Your task to perform on an android device: install app "Google Home" Image 0: 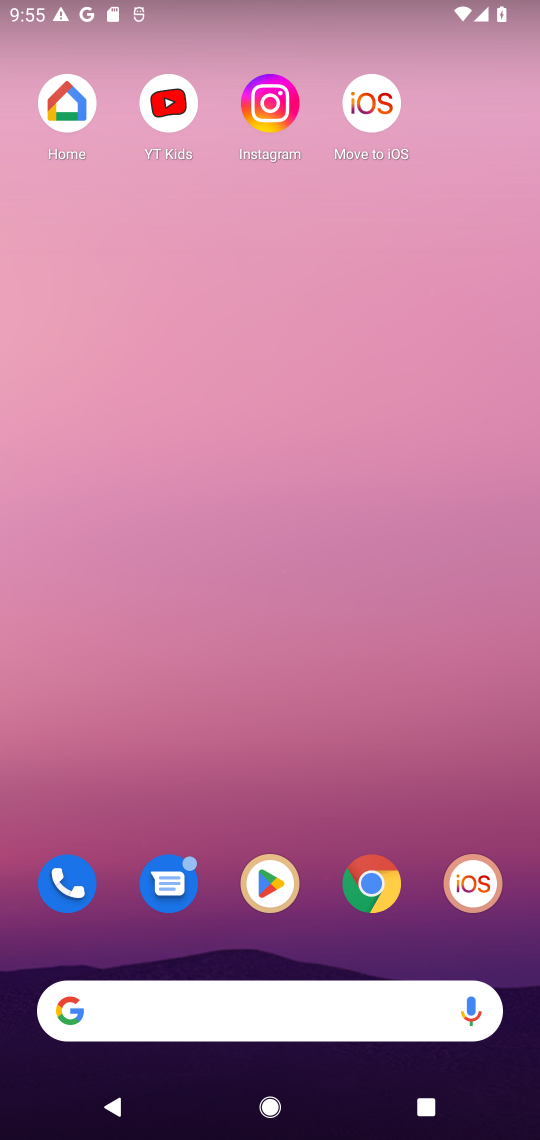
Step 0: press home button
Your task to perform on an android device: install app "Google Home" Image 1: 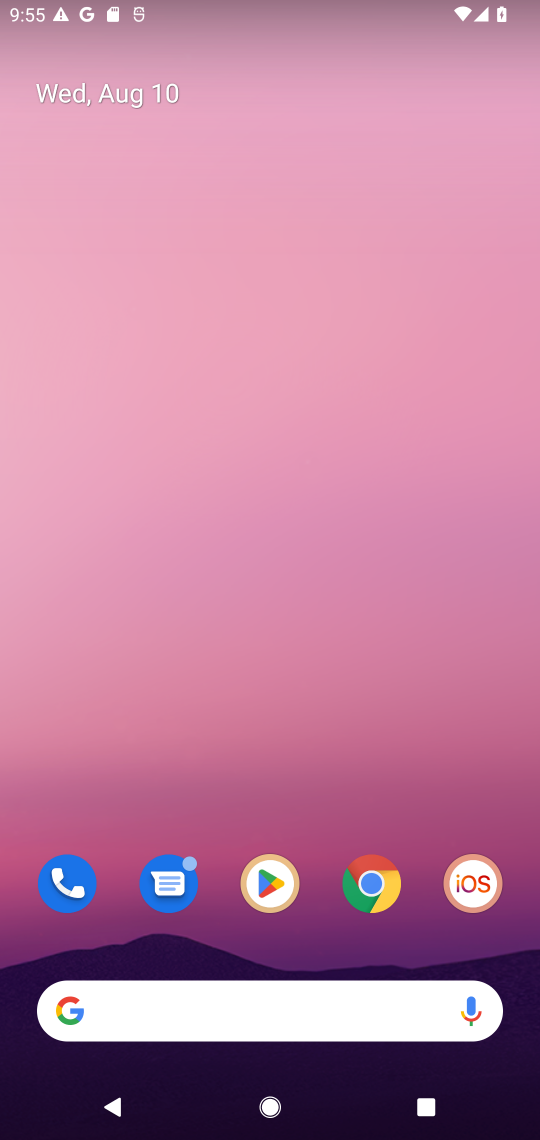
Step 1: drag from (421, 821) to (428, 82)
Your task to perform on an android device: install app "Google Home" Image 2: 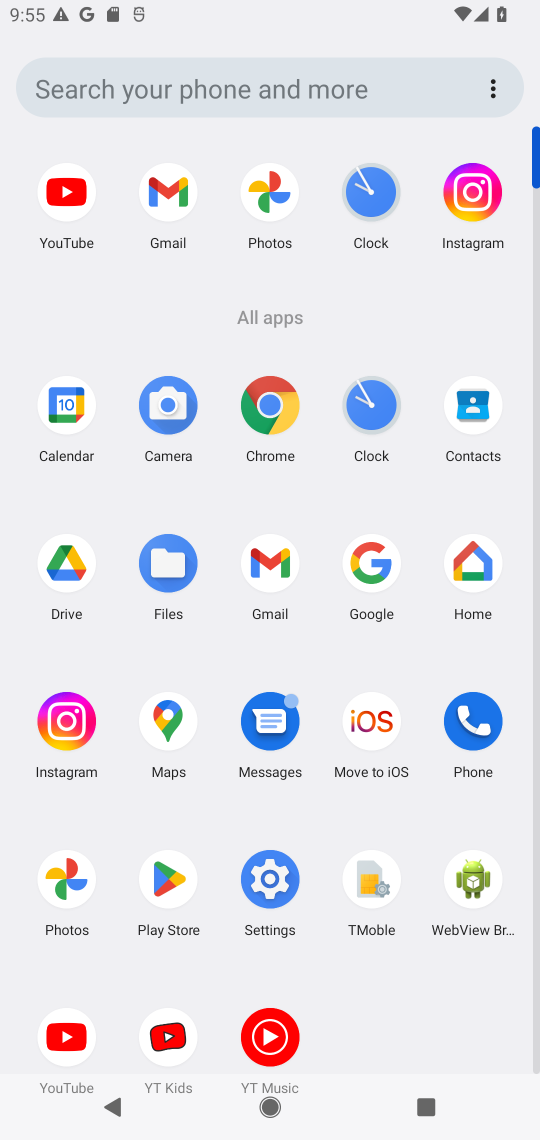
Step 2: click (161, 873)
Your task to perform on an android device: install app "Google Home" Image 3: 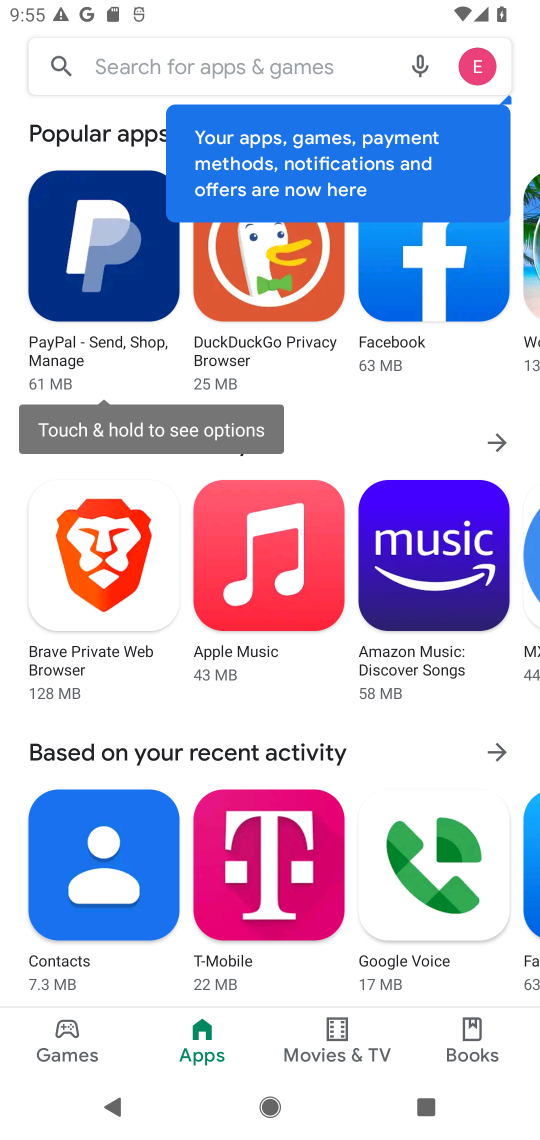
Step 3: click (313, 65)
Your task to perform on an android device: install app "Google Home" Image 4: 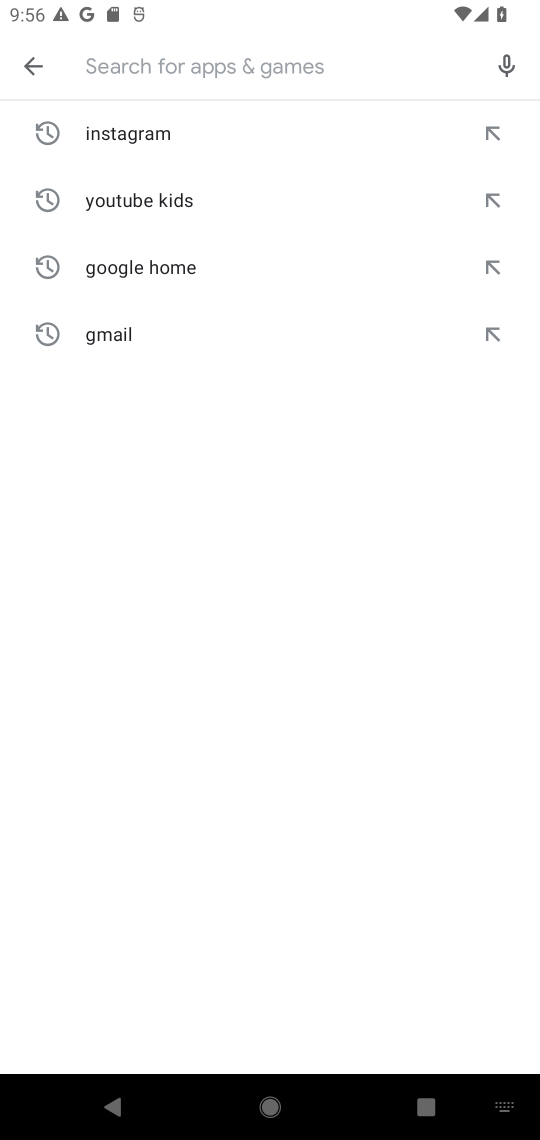
Step 4: press enter
Your task to perform on an android device: install app "Google Home" Image 5: 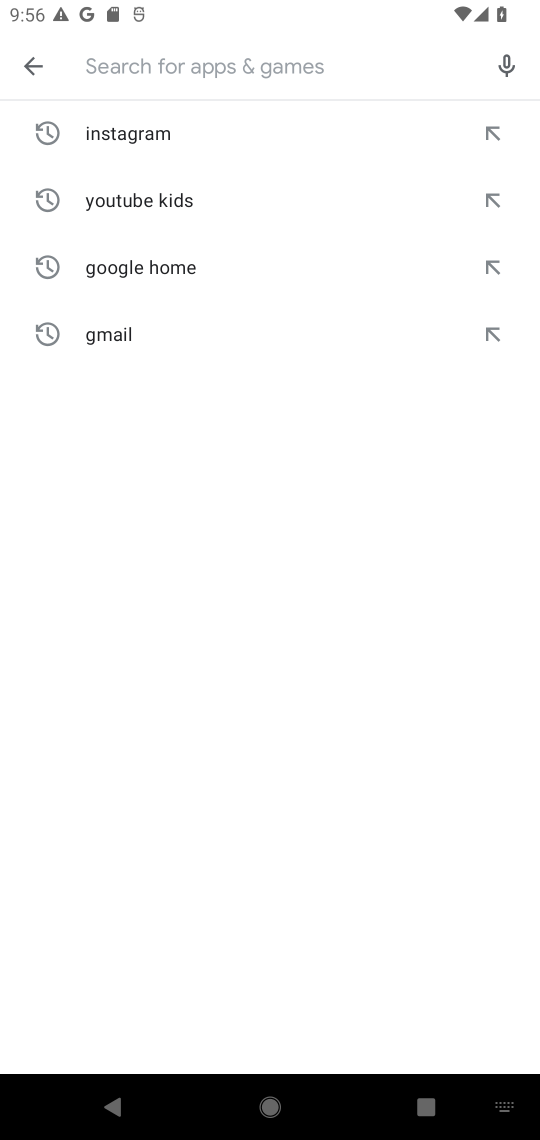
Step 5: type "google home"
Your task to perform on an android device: install app "Google Home" Image 6: 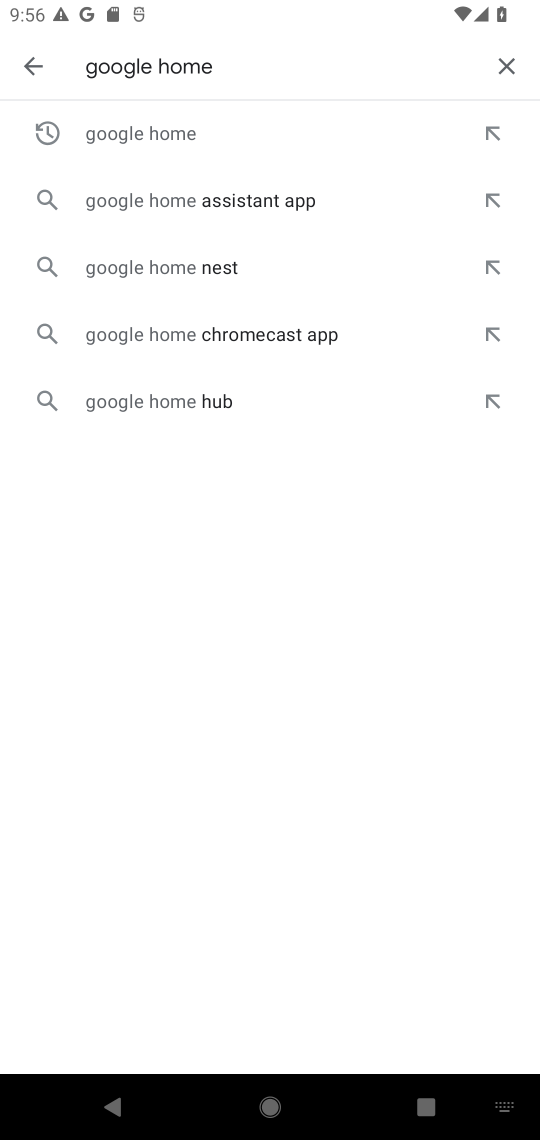
Step 6: click (162, 130)
Your task to perform on an android device: install app "Google Home" Image 7: 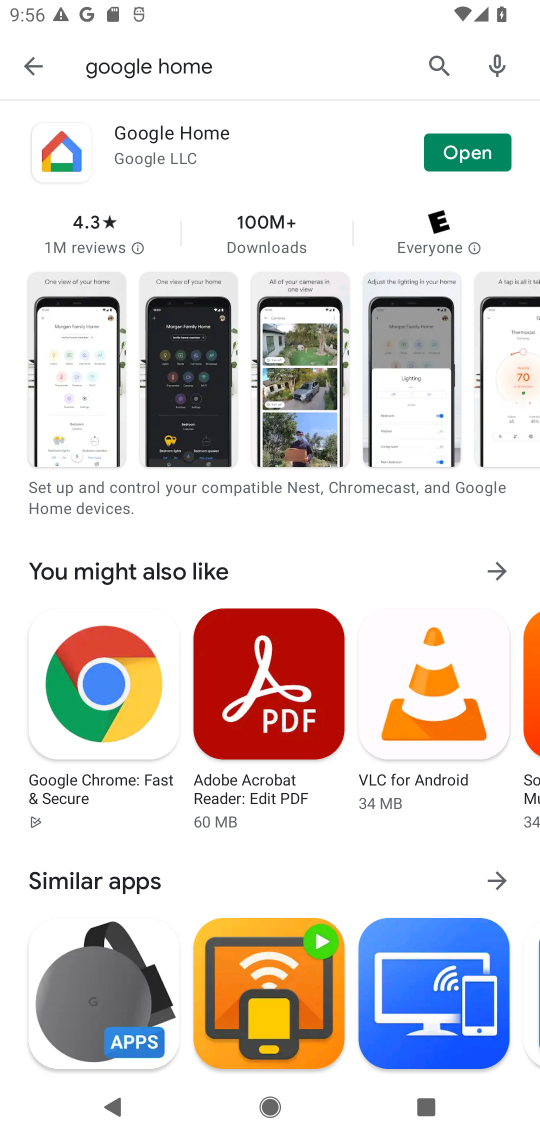
Step 7: task complete